Your task to perform on an android device: Check the news Image 0: 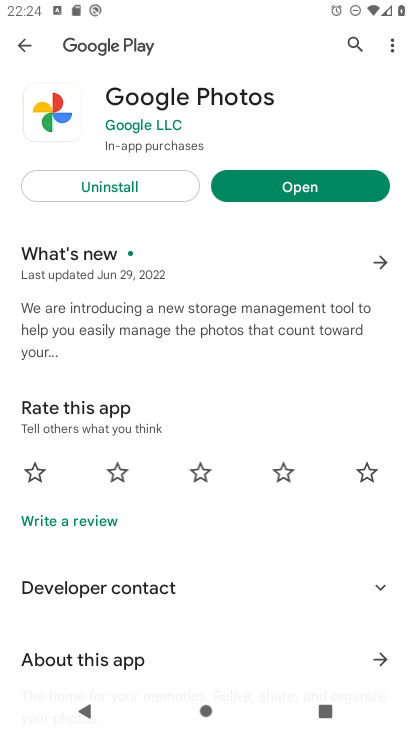
Step 0: press home button
Your task to perform on an android device: Check the news Image 1: 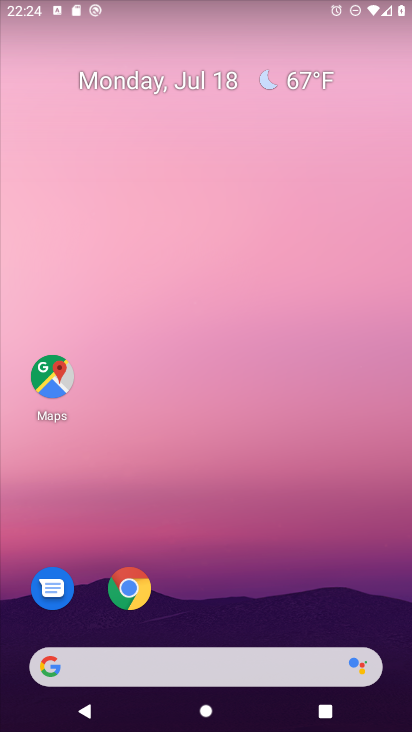
Step 1: task complete